Your task to perform on an android device: Show me the alarms in the clock app Image 0: 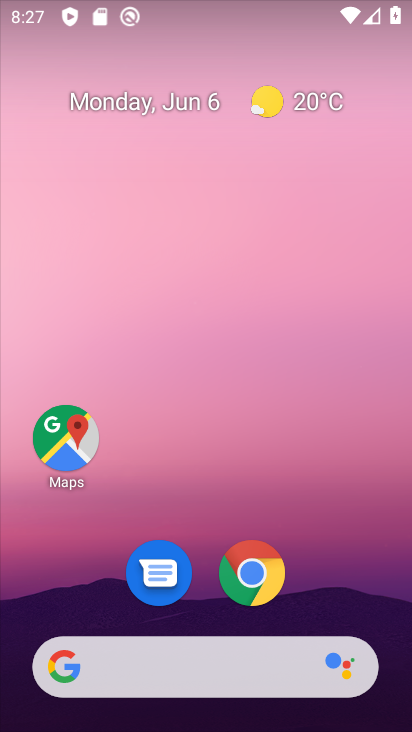
Step 0: drag from (181, 584) to (240, 40)
Your task to perform on an android device: Show me the alarms in the clock app Image 1: 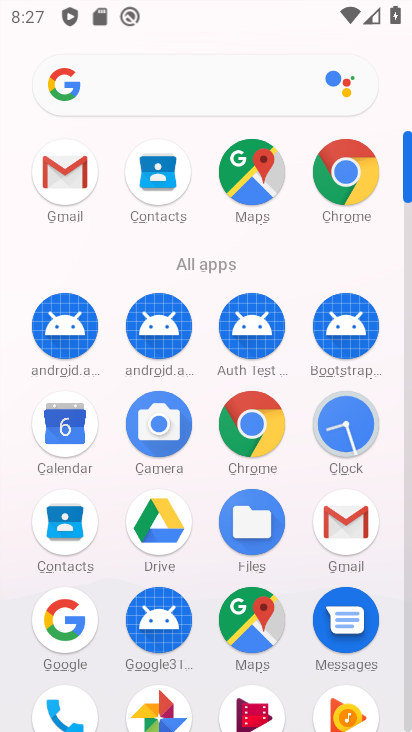
Step 1: click (349, 431)
Your task to perform on an android device: Show me the alarms in the clock app Image 2: 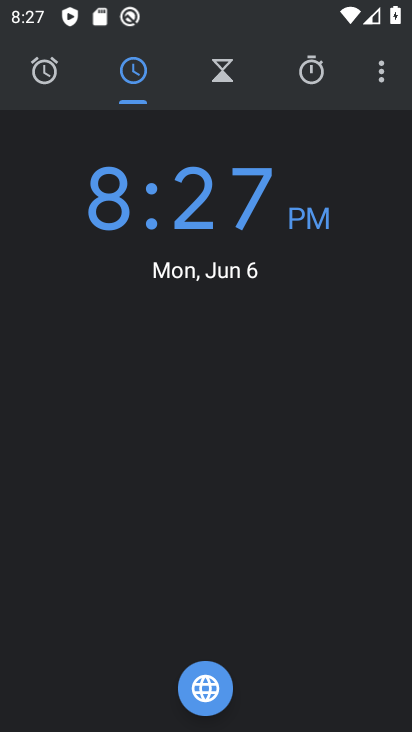
Step 2: click (48, 65)
Your task to perform on an android device: Show me the alarms in the clock app Image 3: 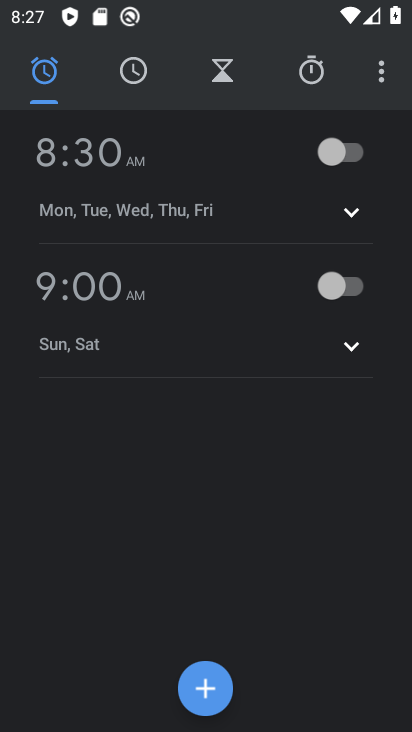
Step 3: task complete